Your task to perform on an android device: Find coffee shops on Maps Image 0: 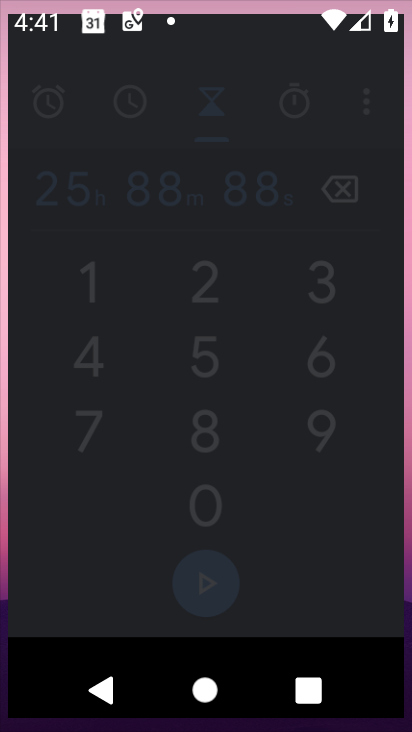
Step 0: drag from (357, 516) to (386, 50)
Your task to perform on an android device: Find coffee shops on Maps Image 1: 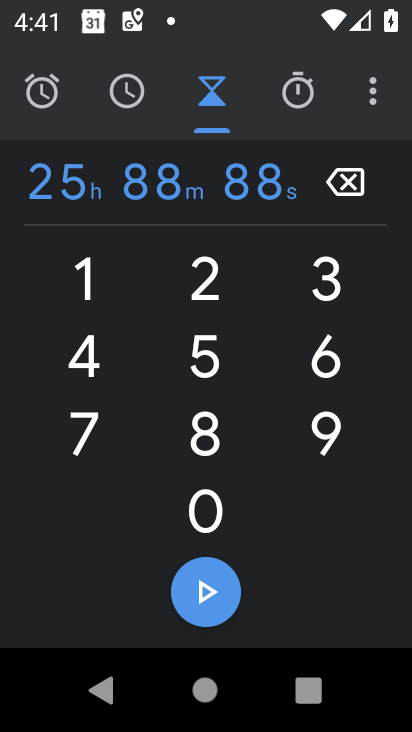
Step 1: press home button
Your task to perform on an android device: Find coffee shops on Maps Image 2: 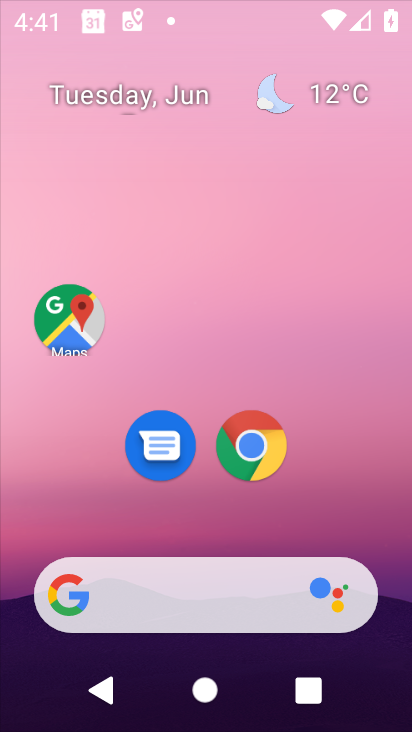
Step 2: drag from (348, 537) to (342, 0)
Your task to perform on an android device: Find coffee shops on Maps Image 3: 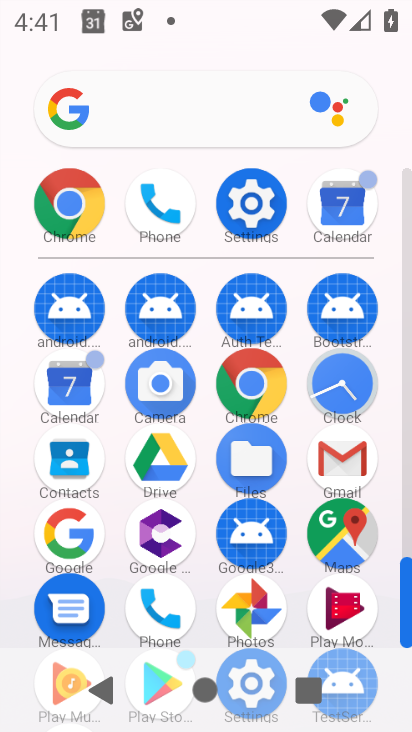
Step 3: click (343, 532)
Your task to perform on an android device: Find coffee shops on Maps Image 4: 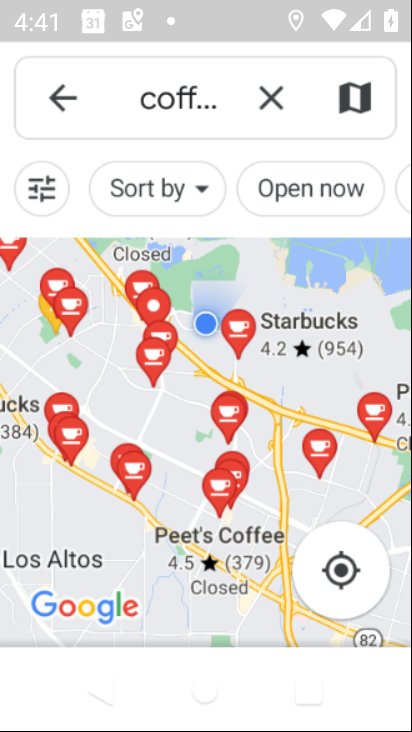
Step 4: click (289, 95)
Your task to perform on an android device: Find coffee shops on Maps Image 5: 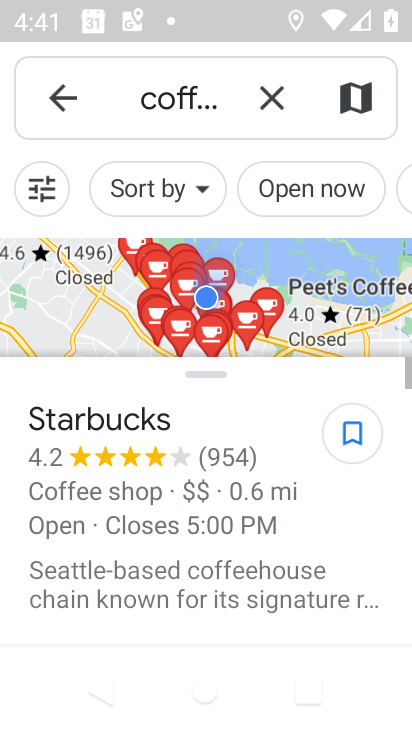
Step 5: task complete